Your task to perform on an android device: Is it going to rain tomorrow? Image 0: 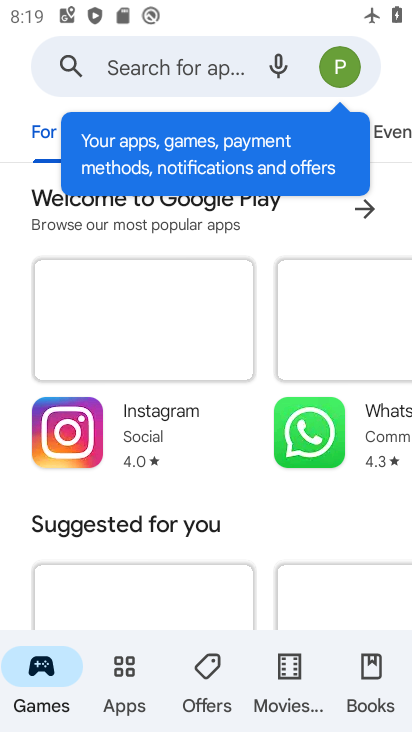
Step 0: press home button
Your task to perform on an android device: Is it going to rain tomorrow? Image 1: 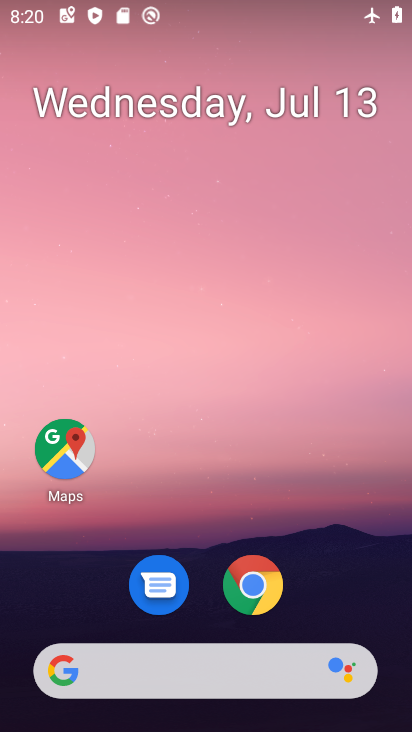
Step 1: click (155, 674)
Your task to perform on an android device: Is it going to rain tomorrow? Image 2: 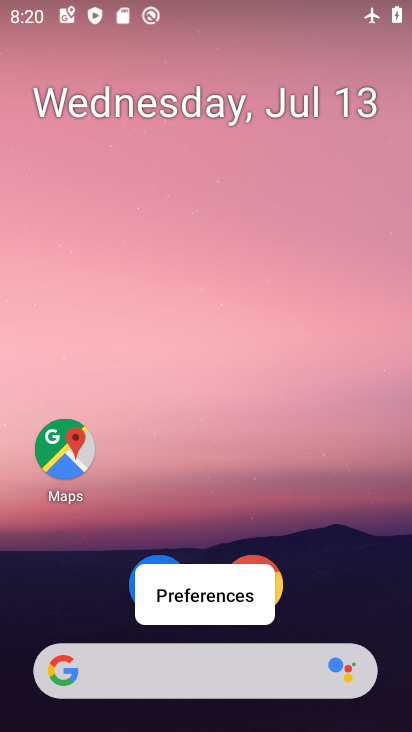
Step 2: click (155, 674)
Your task to perform on an android device: Is it going to rain tomorrow? Image 3: 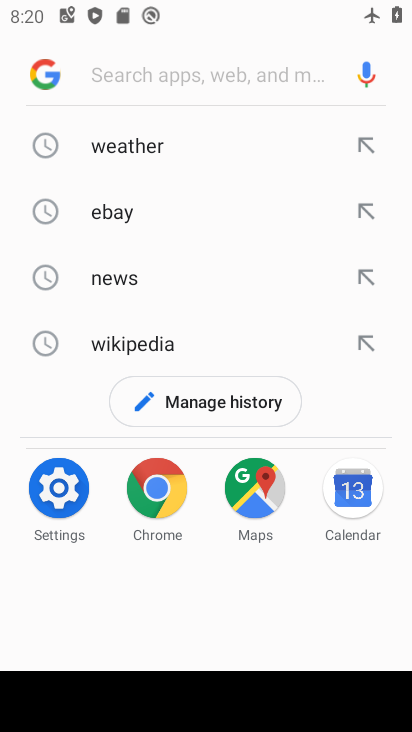
Step 3: click (43, 142)
Your task to perform on an android device: Is it going to rain tomorrow? Image 4: 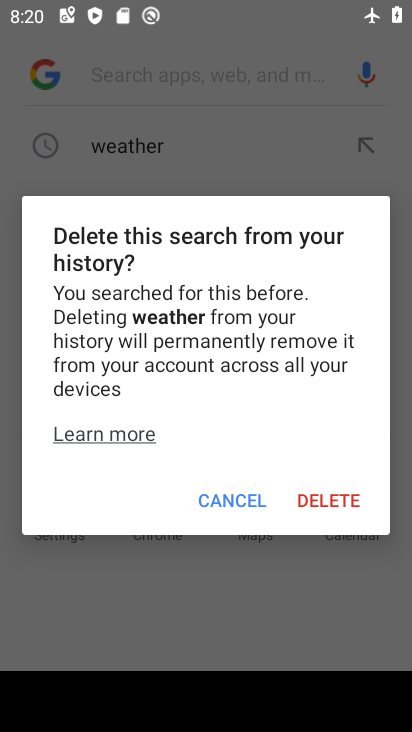
Step 4: click (234, 502)
Your task to perform on an android device: Is it going to rain tomorrow? Image 5: 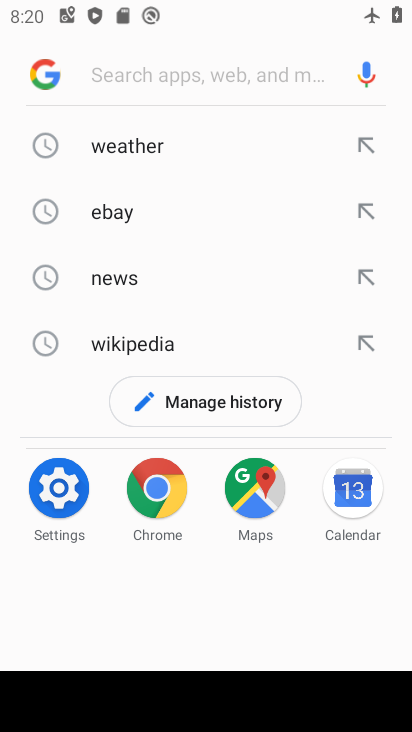
Step 5: click (117, 142)
Your task to perform on an android device: Is it going to rain tomorrow? Image 6: 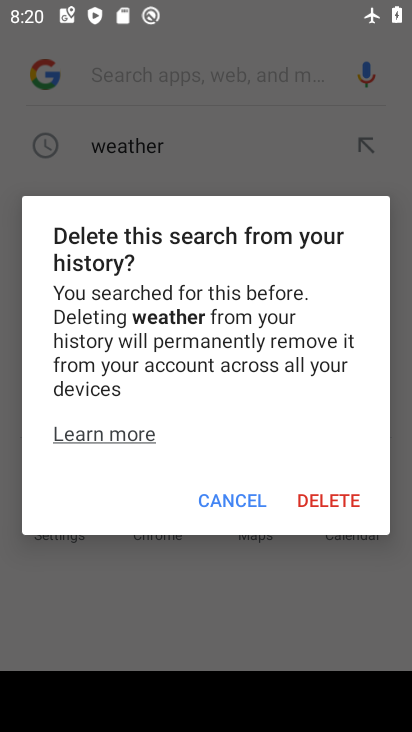
Step 6: click (222, 494)
Your task to perform on an android device: Is it going to rain tomorrow? Image 7: 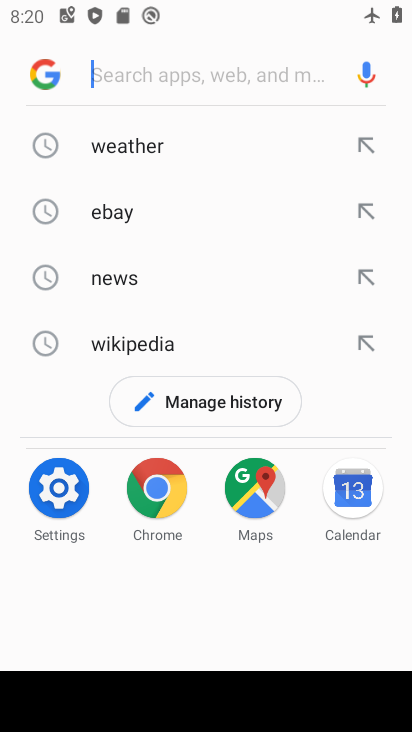
Step 7: click (363, 142)
Your task to perform on an android device: Is it going to rain tomorrow? Image 8: 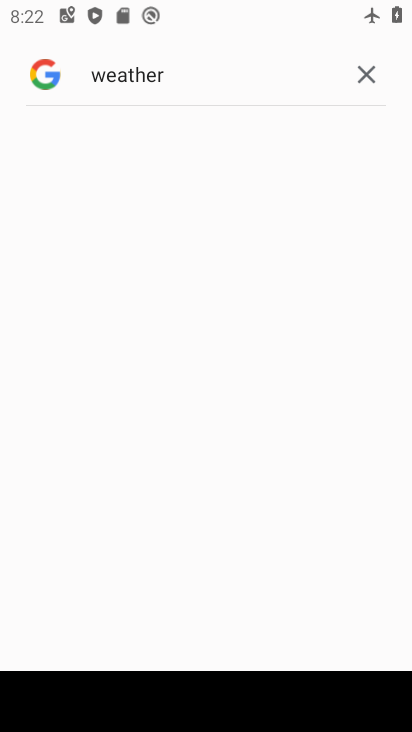
Step 8: task complete